Your task to perform on an android device: Open location settings Image 0: 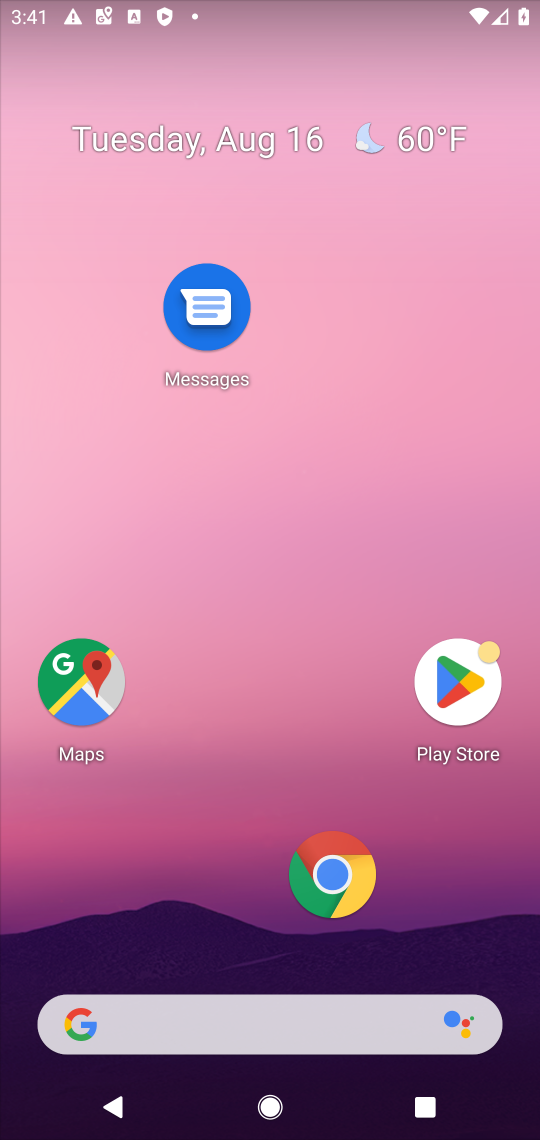
Step 0: drag from (263, 870) to (173, 159)
Your task to perform on an android device: Open location settings Image 1: 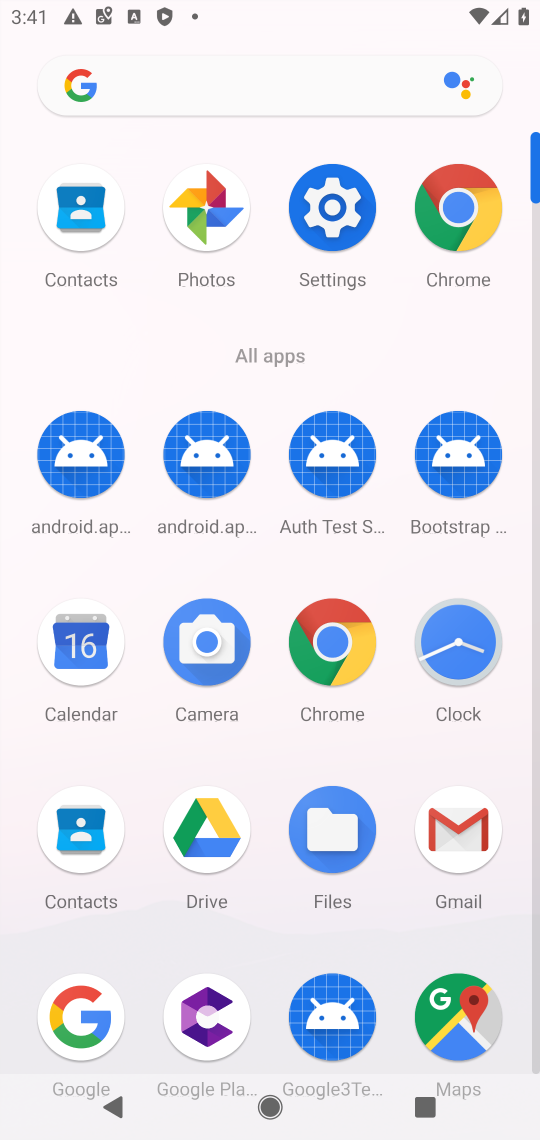
Step 1: click (329, 223)
Your task to perform on an android device: Open location settings Image 2: 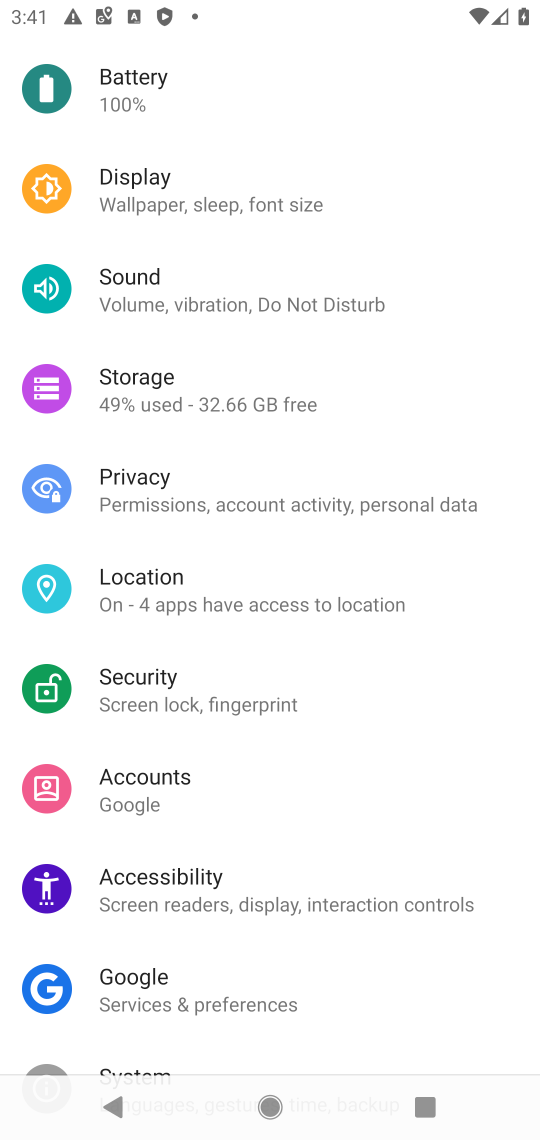
Step 2: drag from (414, 214) to (376, 1104)
Your task to perform on an android device: Open location settings Image 3: 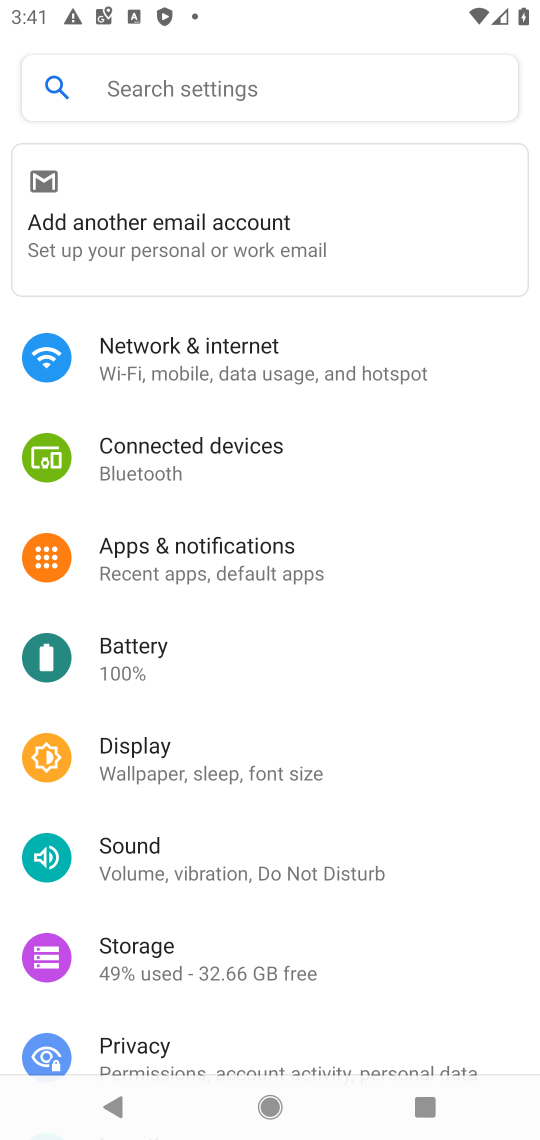
Step 3: drag from (376, 878) to (288, 346)
Your task to perform on an android device: Open location settings Image 4: 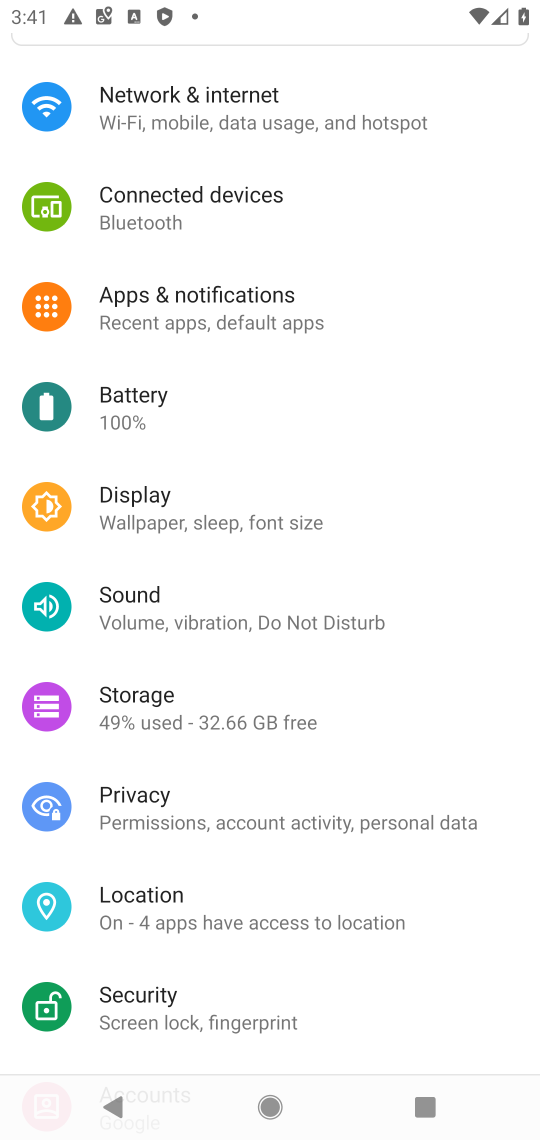
Step 4: click (181, 892)
Your task to perform on an android device: Open location settings Image 5: 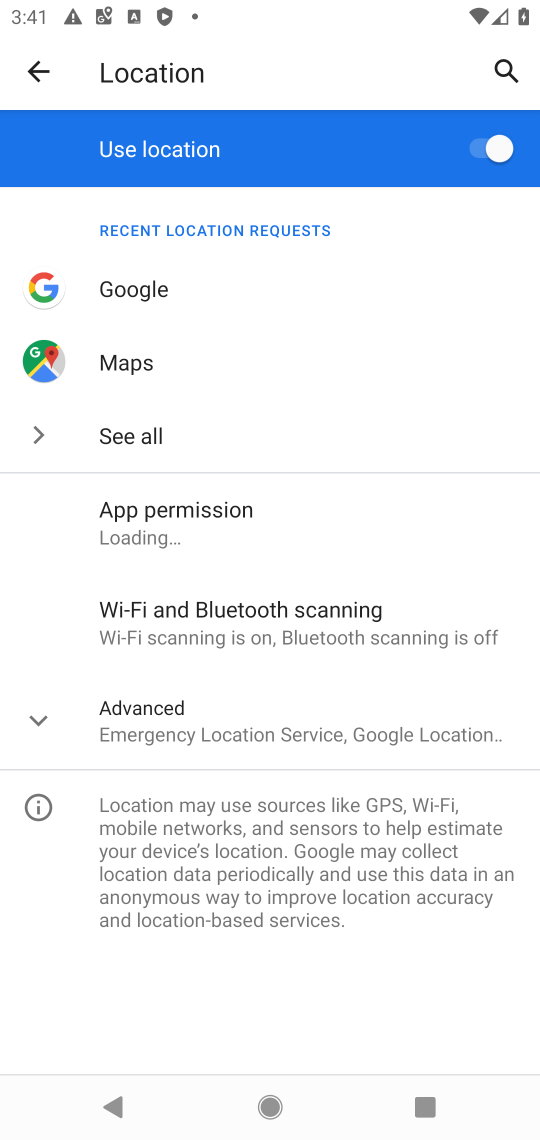
Step 5: task complete